Your task to perform on an android device: Toggle the flashlight Image 0: 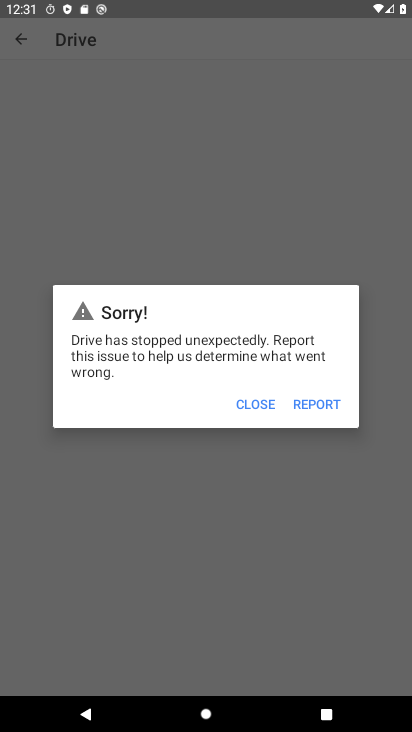
Step 0: press home button
Your task to perform on an android device: Toggle the flashlight Image 1: 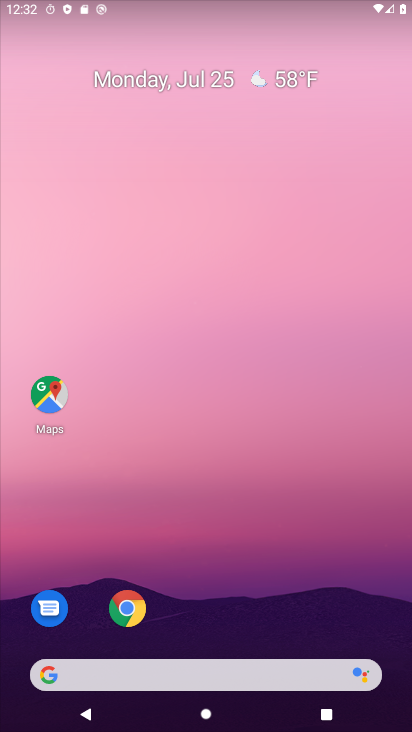
Step 1: drag from (258, 446) to (192, 3)
Your task to perform on an android device: Toggle the flashlight Image 2: 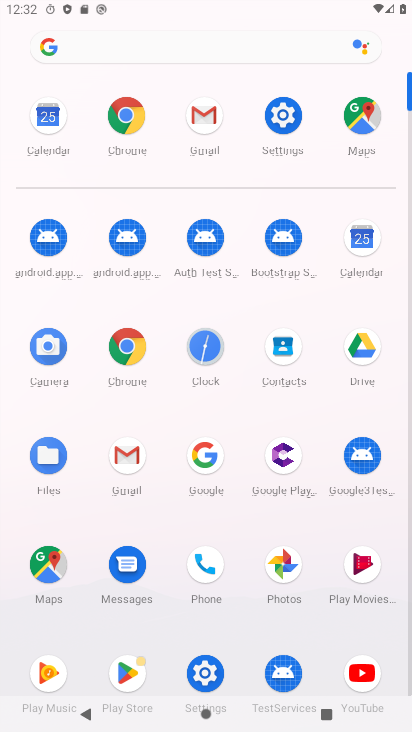
Step 2: click (279, 112)
Your task to perform on an android device: Toggle the flashlight Image 3: 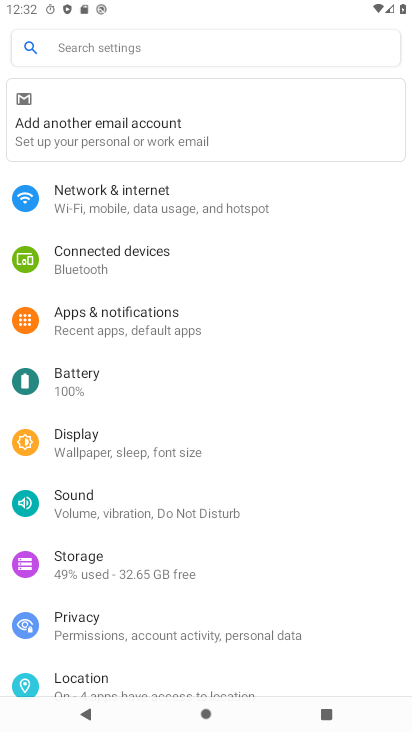
Step 3: click (106, 457)
Your task to perform on an android device: Toggle the flashlight Image 4: 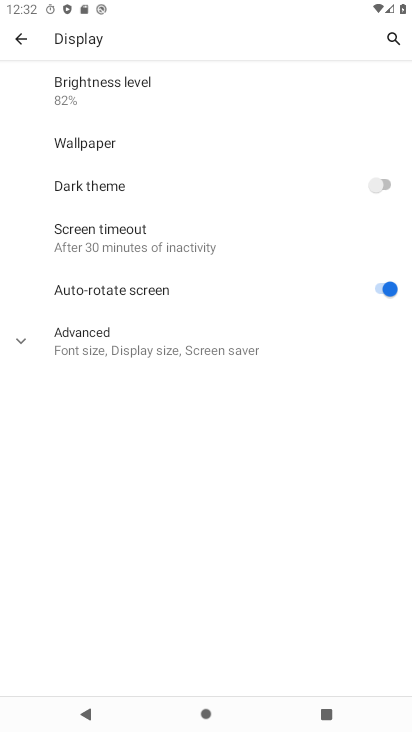
Step 4: task complete